Your task to perform on an android device: Search for vegetarian restaurants on Maps Image 0: 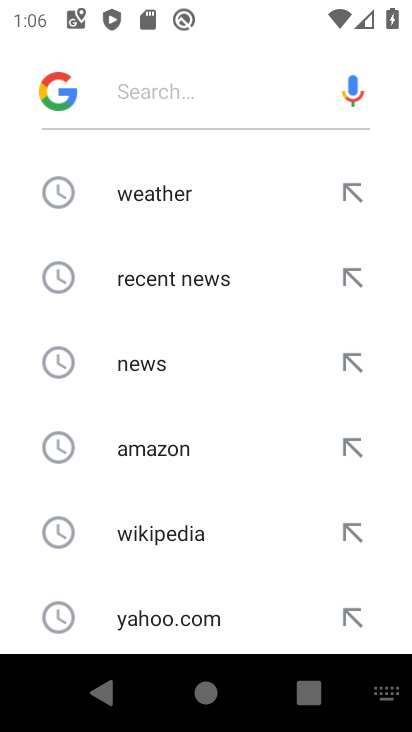
Step 0: press home button
Your task to perform on an android device: Search for vegetarian restaurants on Maps Image 1: 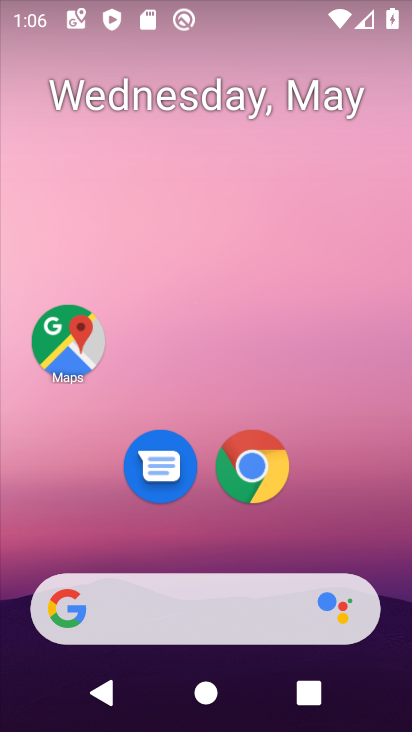
Step 1: click (205, 539)
Your task to perform on an android device: Search for vegetarian restaurants on Maps Image 2: 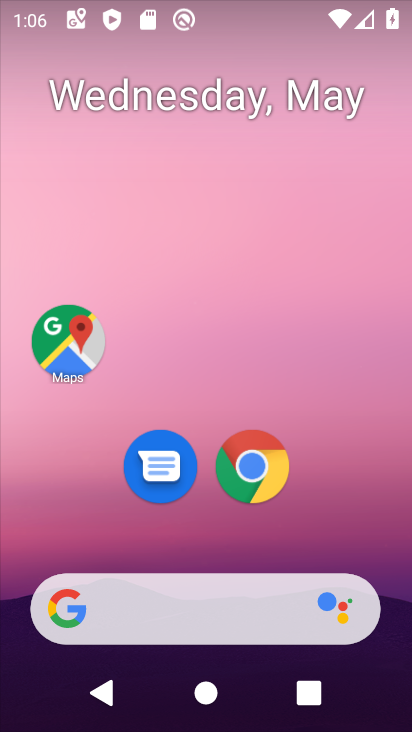
Step 2: click (65, 350)
Your task to perform on an android device: Search for vegetarian restaurants on Maps Image 3: 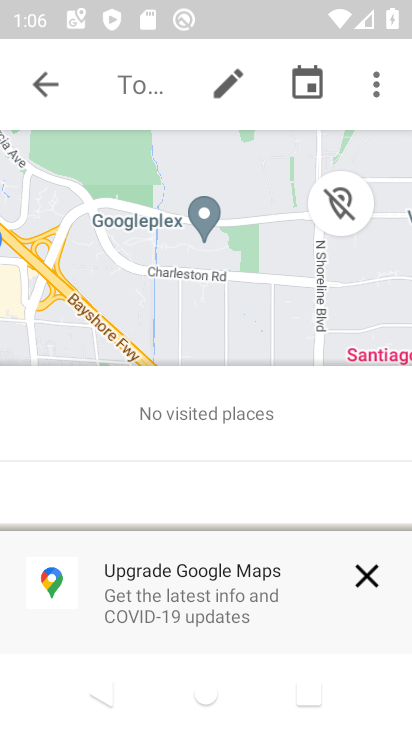
Step 3: press back button
Your task to perform on an android device: Search for vegetarian restaurants on Maps Image 4: 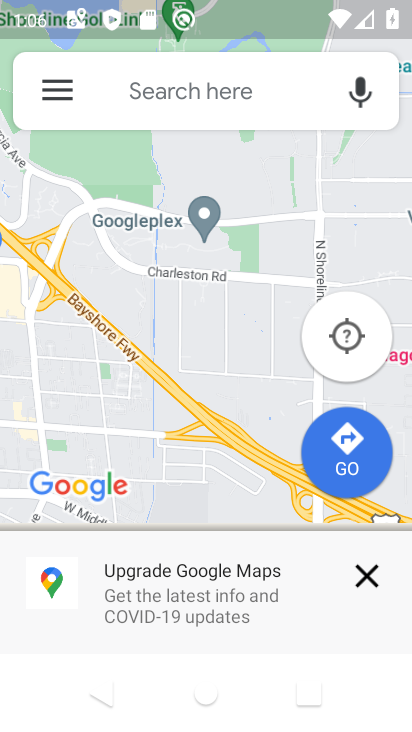
Step 4: click (172, 92)
Your task to perform on an android device: Search for vegetarian restaurants on Maps Image 5: 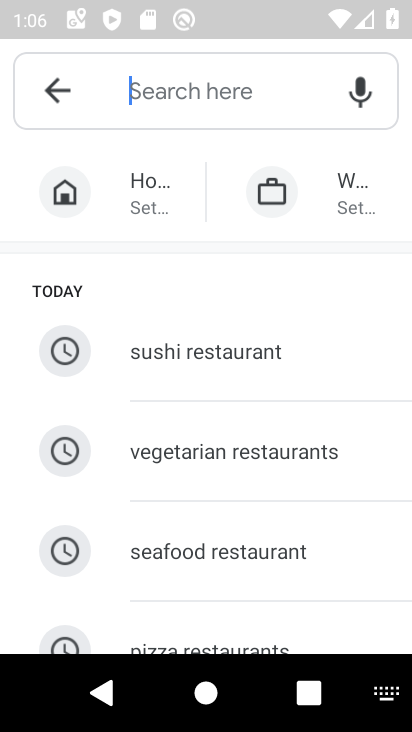
Step 5: click (237, 446)
Your task to perform on an android device: Search for vegetarian restaurants on Maps Image 6: 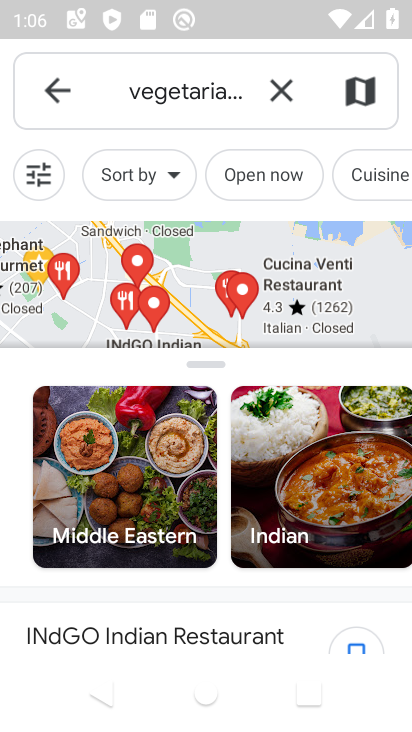
Step 6: task complete